Your task to perform on an android device: Add "bose soundsport free" to the cart on costco.com, then select checkout. Image 0: 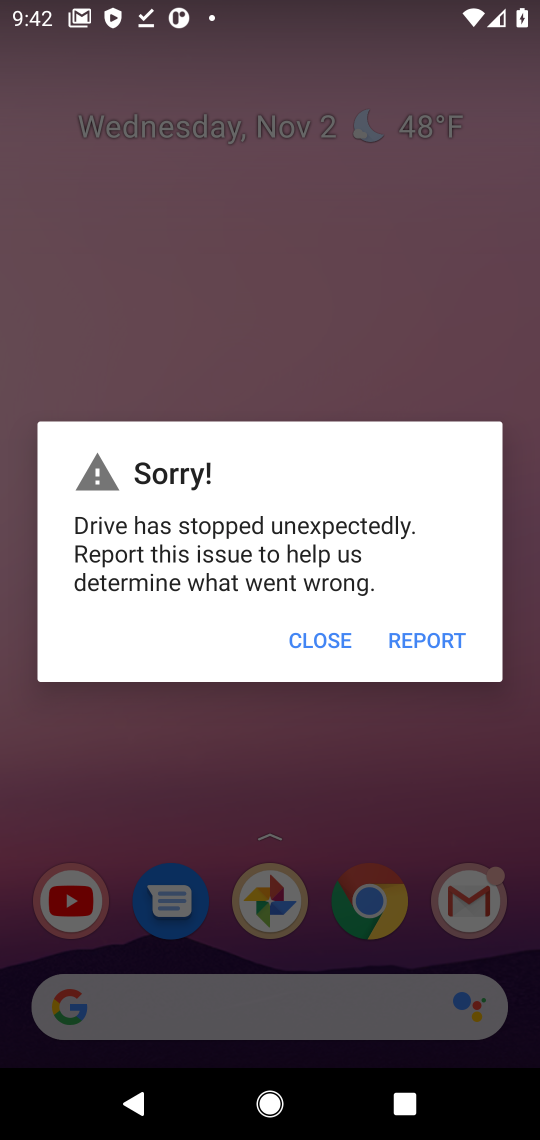
Step 0: press home button
Your task to perform on an android device: Add "bose soundsport free" to the cart on costco.com, then select checkout. Image 1: 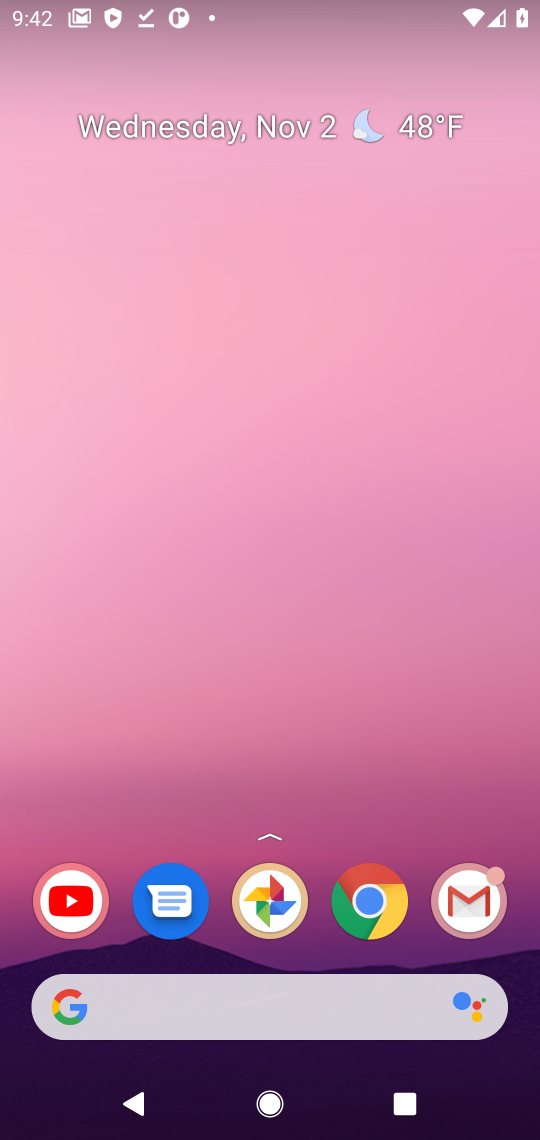
Step 1: click (359, 918)
Your task to perform on an android device: Add "bose soundsport free" to the cart on costco.com, then select checkout. Image 2: 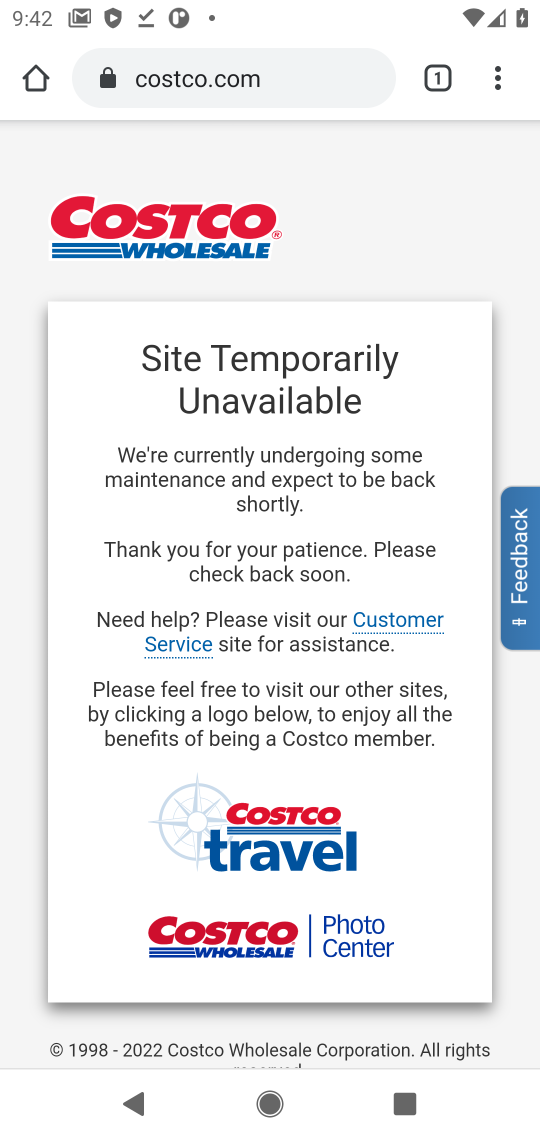
Step 2: click (253, 79)
Your task to perform on an android device: Add "bose soundsport free" to the cart on costco.com, then select checkout. Image 3: 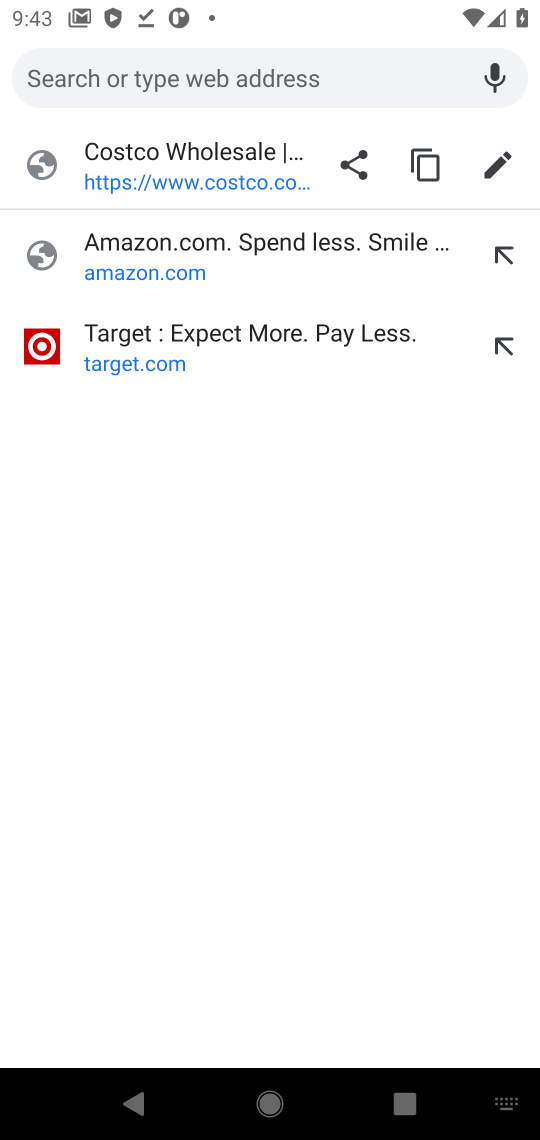
Step 3: click (142, 189)
Your task to perform on an android device: Add "bose soundsport free" to the cart on costco.com, then select checkout. Image 4: 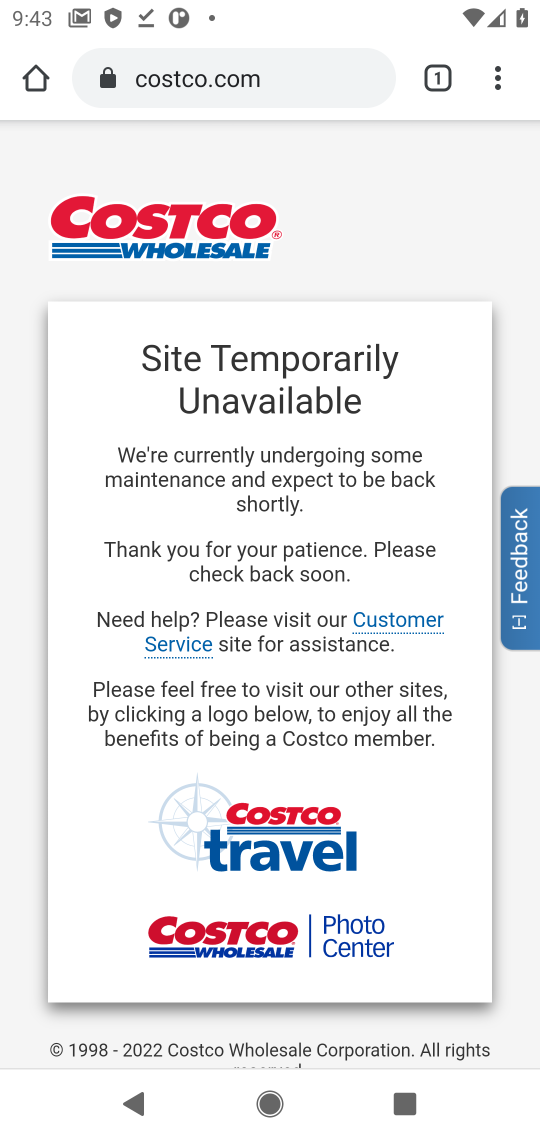
Step 4: task complete